Your task to perform on an android device: Open internet settings Image 0: 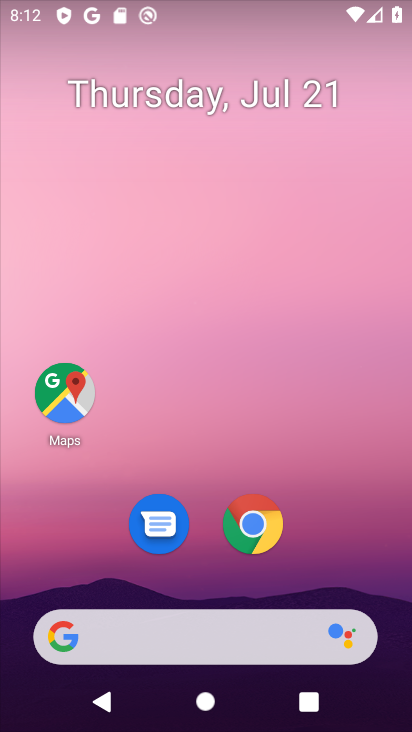
Step 0: drag from (217, 651) to (359, 20)
Your task to perform on an android device: Open internet settings Image 1: 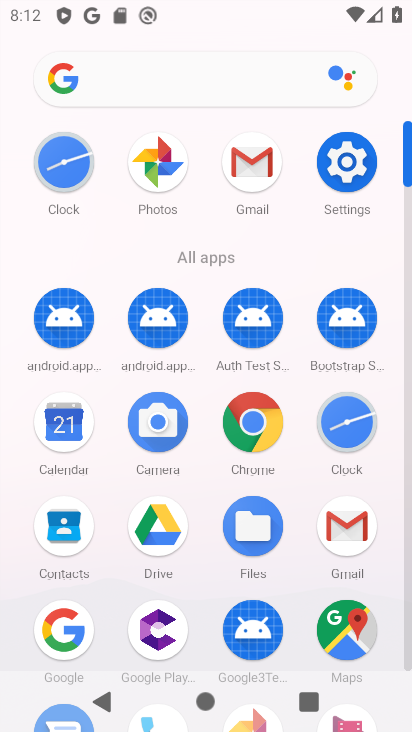
Step 1: click (348, 167)
Your task to perform on an android device: Open internet settings Image 2: 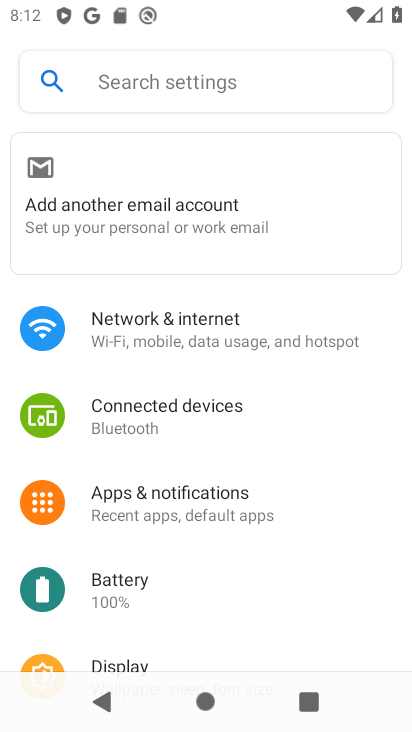
Step 2: click (193, 334)
Your task to perform on an android device: Open internet settings Image 3: 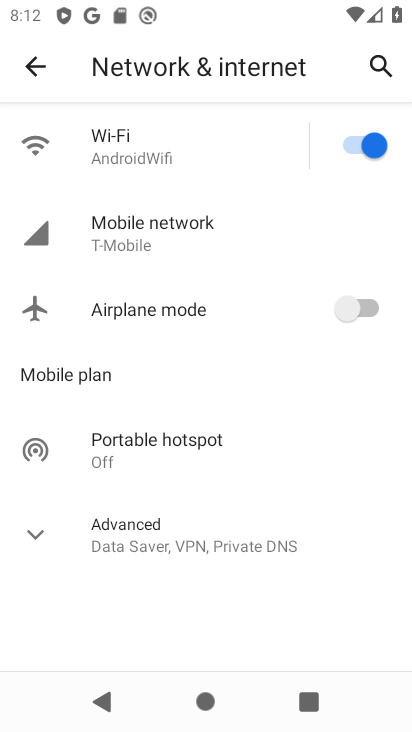
Step 3: task complete